Your task to perform on an android device: uninstall "Facebook Messenger" Image 0: 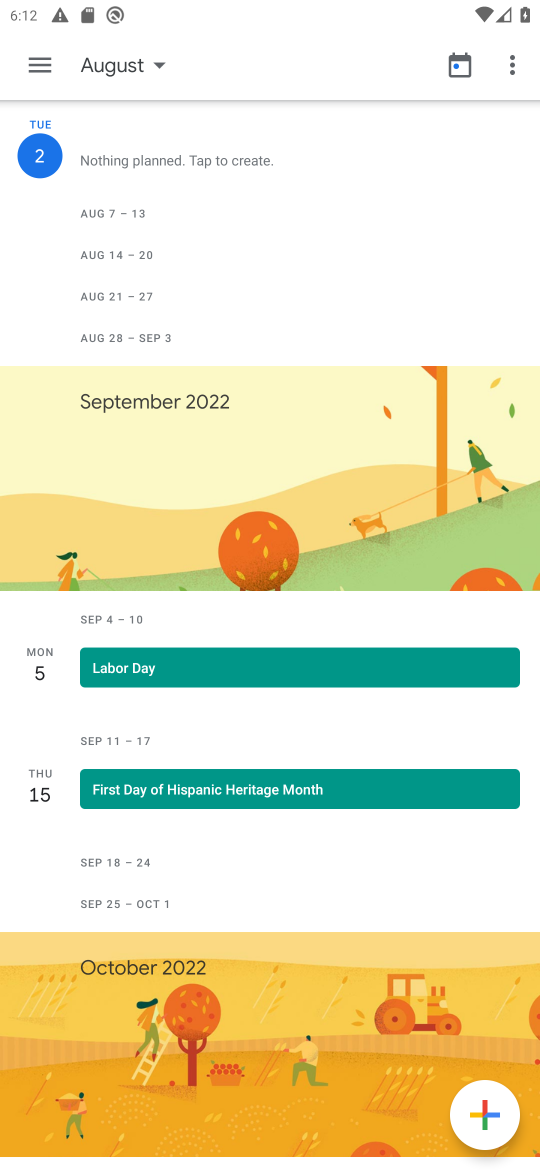
Step 0: press home button
Your task to perform on an android device: uninstall "Facebook Messenger" Image 1: 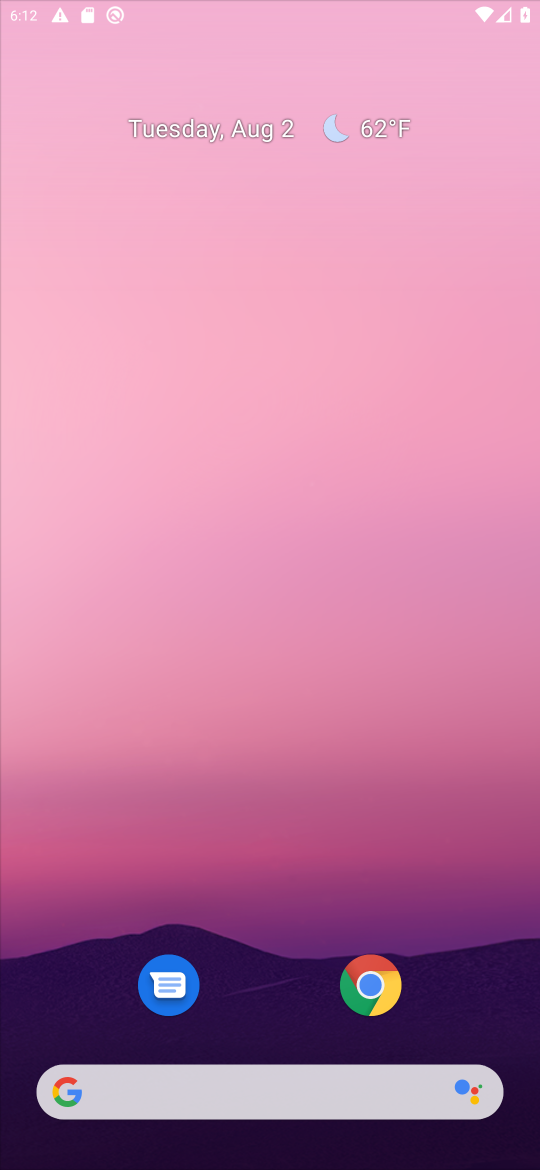
Step 1: drag from (272, 994) to (237, 396)
Your task to perform on an android device: uninstall "Facebook Messenger" Image 2: 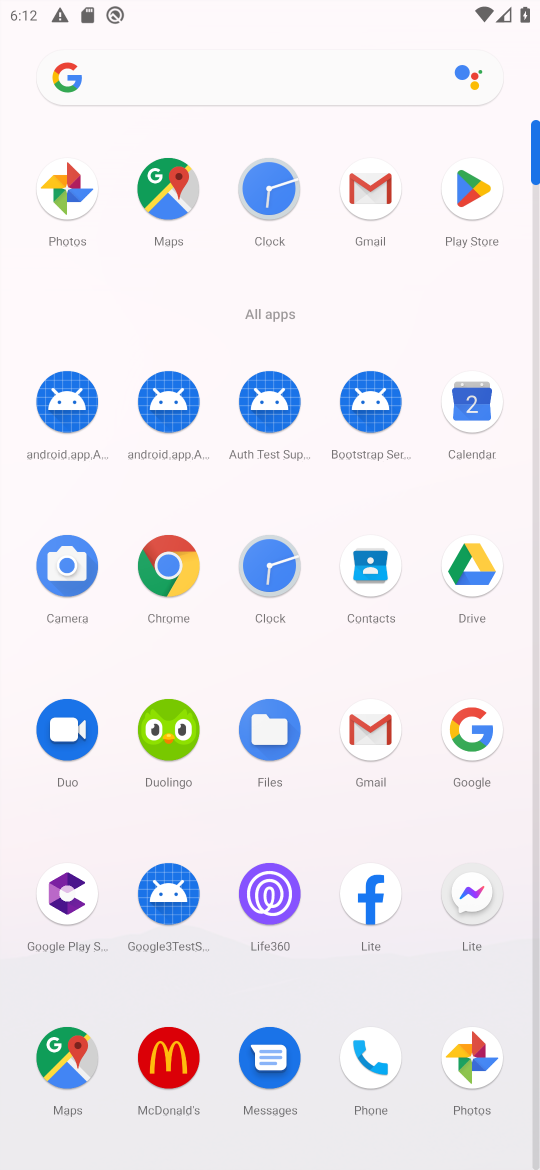
Step 2: click (451, 198)
Your task to perform on an android device: uninstall "Facebook Messenger" Image 3: 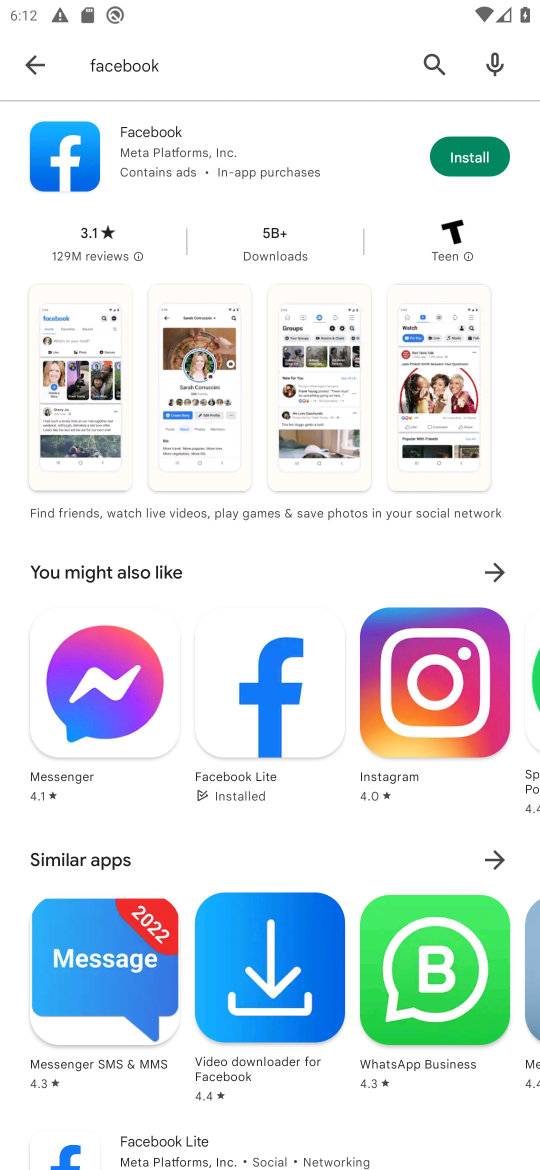
Step 3: click (428, 63)
Your task to perform on an android device: uninstall "Facebook Messenger" Image 4: 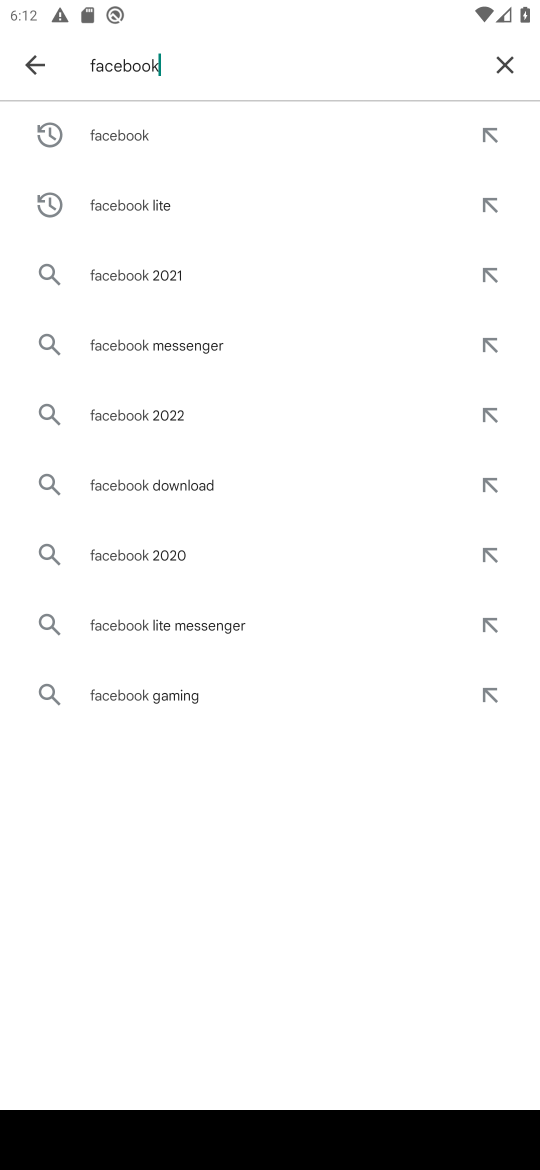
Step 4: click (495, 66)
Your task to perform on an android device: uninstall "Facebook Messenger" Image 5: 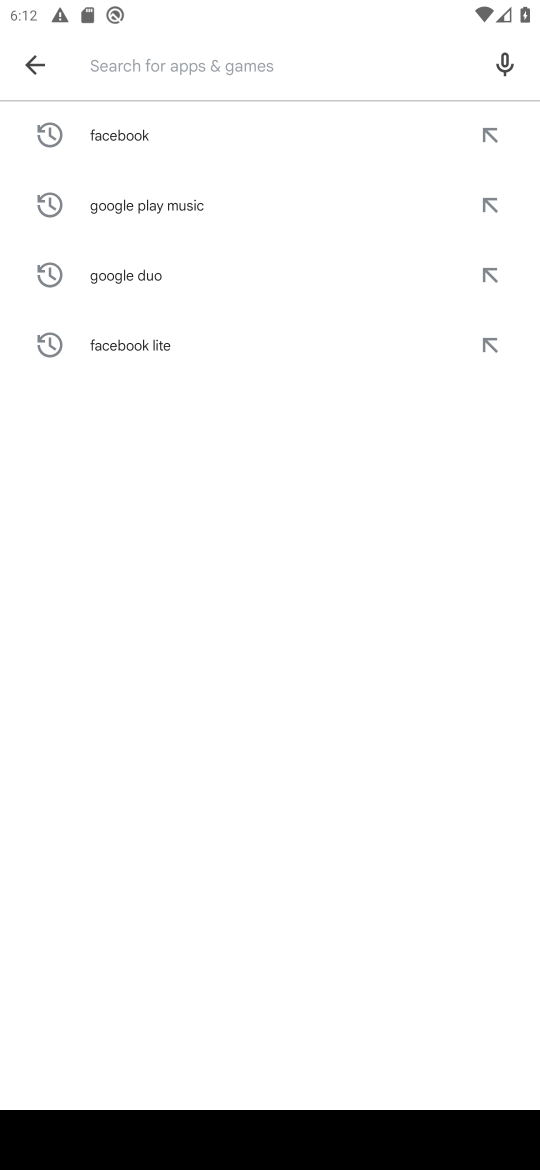
Step 5: type "Facebook Messenger"
Your task to perform on an android device: uninstall "Facebook Messenger" Image 6: 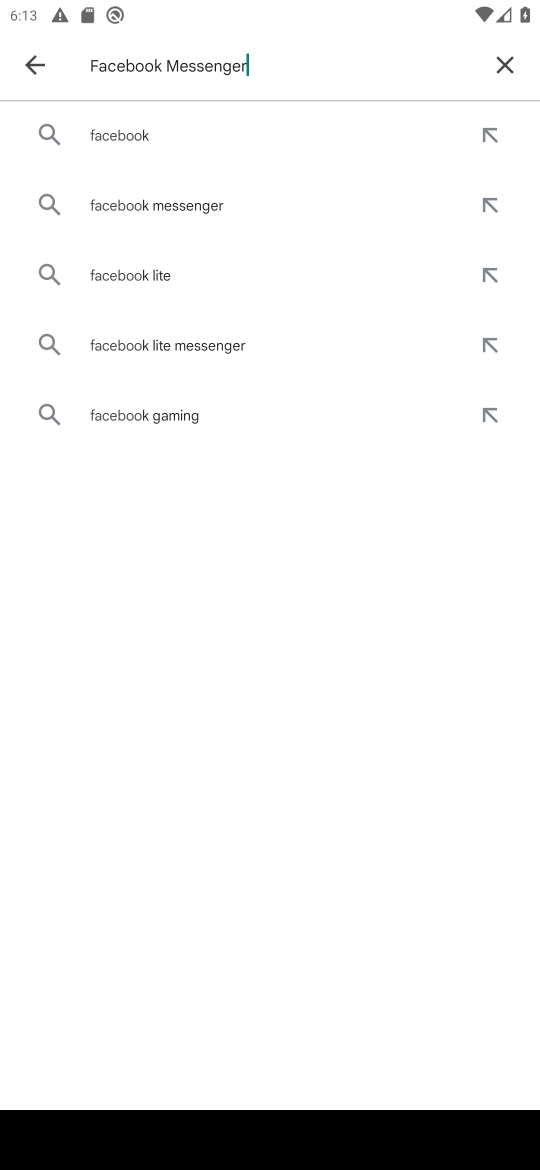
Step 6: type ""
Your task to perform on an android device: uninstall "Facebook Messenger" Image 7: 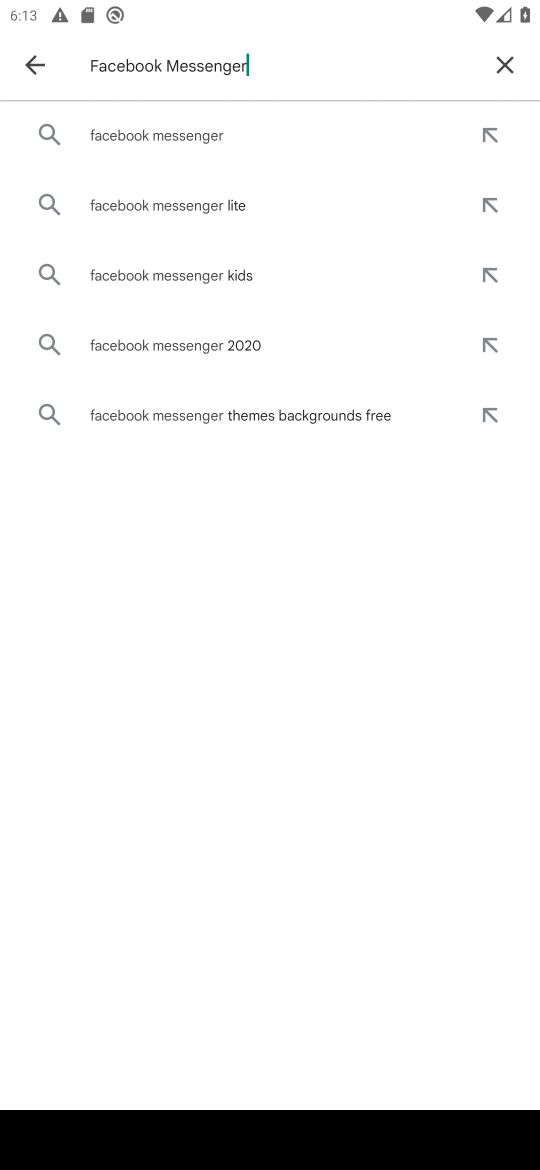
Step 7: click (188, 142)
Your task to perform on an android device: uninstall "Facebook Messenger" Image 8: 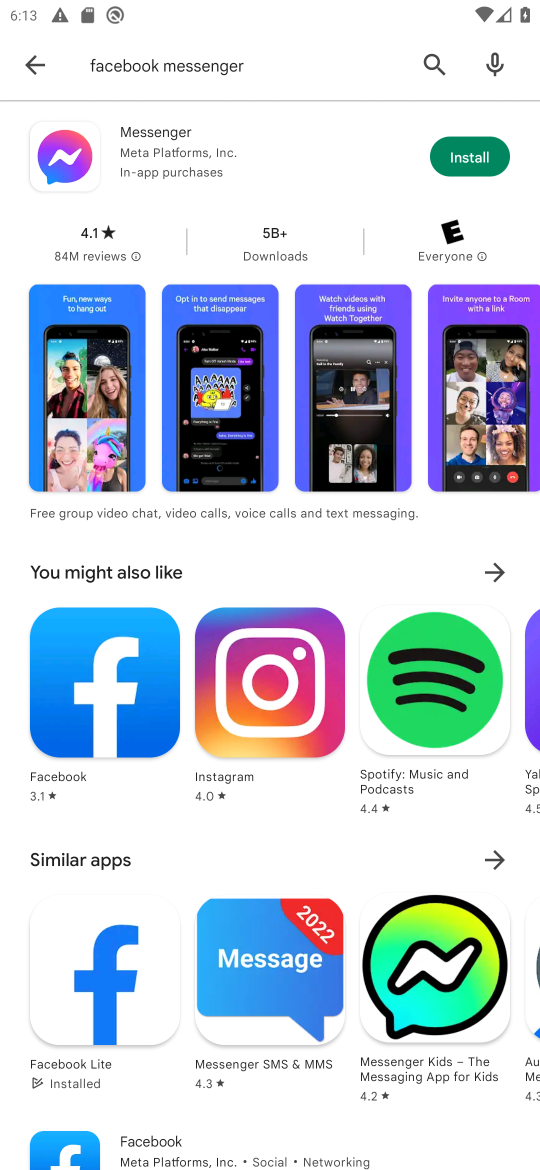
Step 8: task complete